Your task to perform on an android device: Turn on the flashlight Image 0: 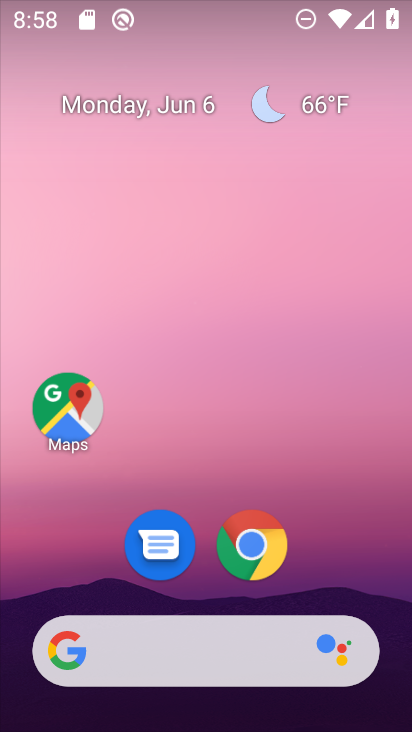
Step 0: drag from (205, 602) to (233, 270)
Your task to perform on an android device: Turn on the flashlight Image 1: 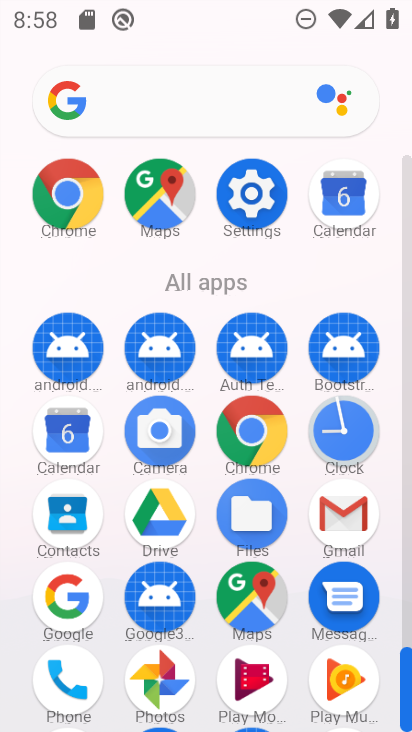
Step 1: click (272, 220)
Your task to perform on an android device: Turn on the flashlight Image 2: 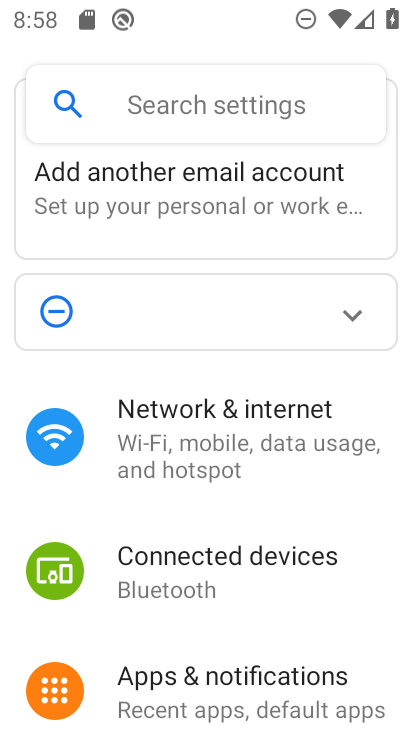
Step 2: click (189, 92)
Your task to perform on an android device: Turn on the flashlight Image 3: 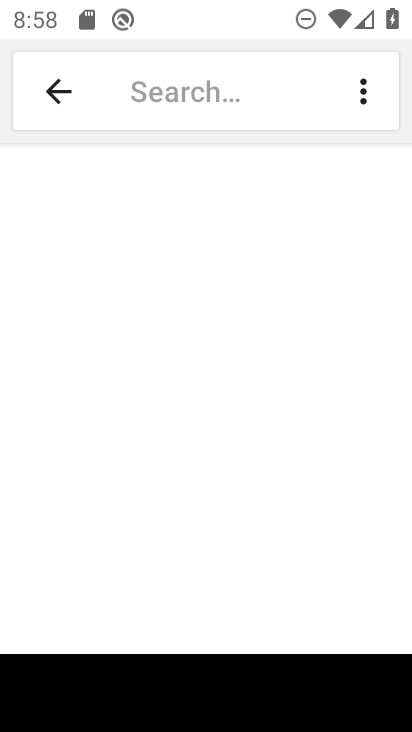
Step 3: type ""
Your task to perform on an android device: Turn on the flashlight Image 4: 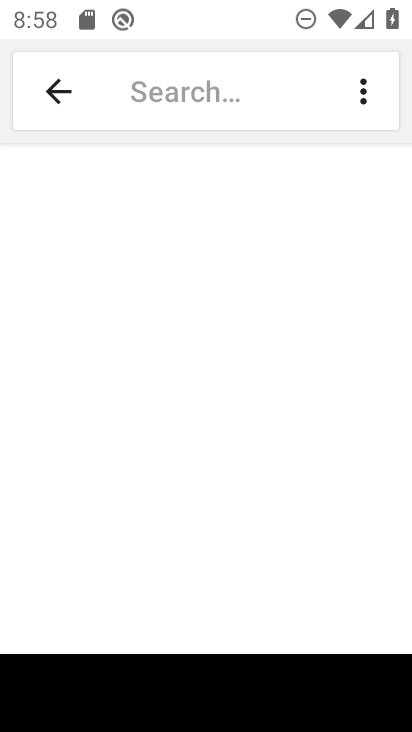
Step 4: type "flashlight"
Your task to perform on an android device: Turn on the flashlight Image 5: 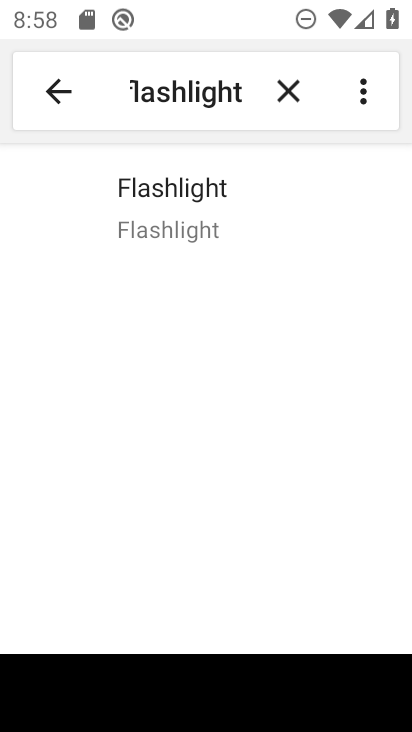
Step 5: click (205, 200)
Your task to perform on an android device: Turn on the flashlight Image 6: 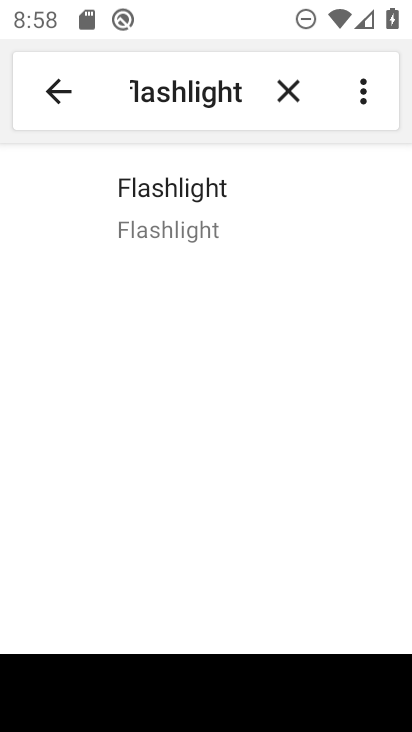
Step 6: click (205, 200)
Your task to perform on an android device: Turn on the flashlight Image 7: 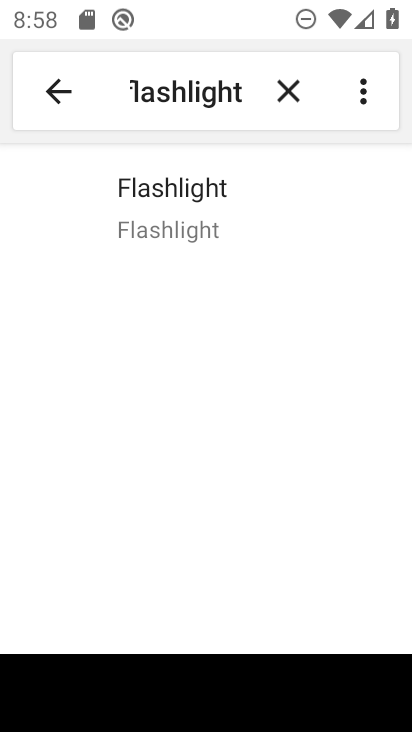
Step 7: task complete